Your task to perform on an android device: toggle wifi Image 0: 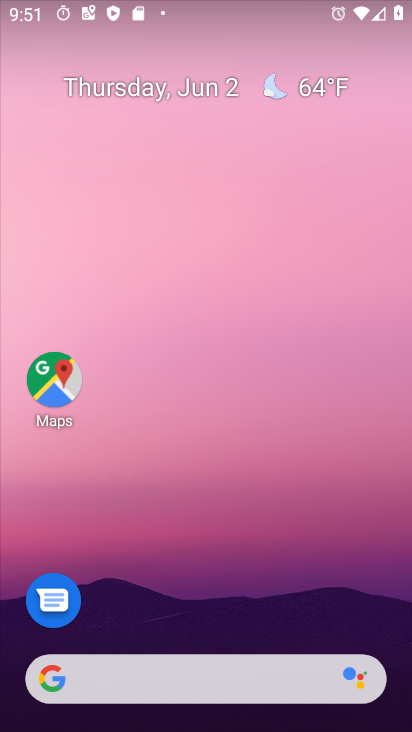
Step 0: drag from (216, 603) to (218, 119)
Your task to perform on an android device: toggle wifi Image 1: 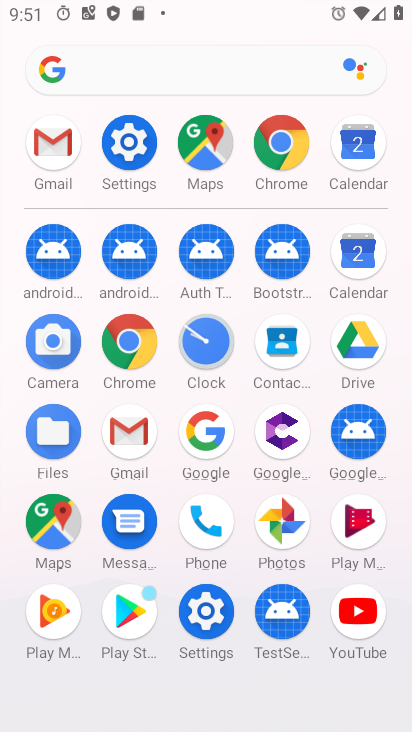
Step 1: click (131, 138)
Your task to perform on an android device: toggle wifi Image 2: 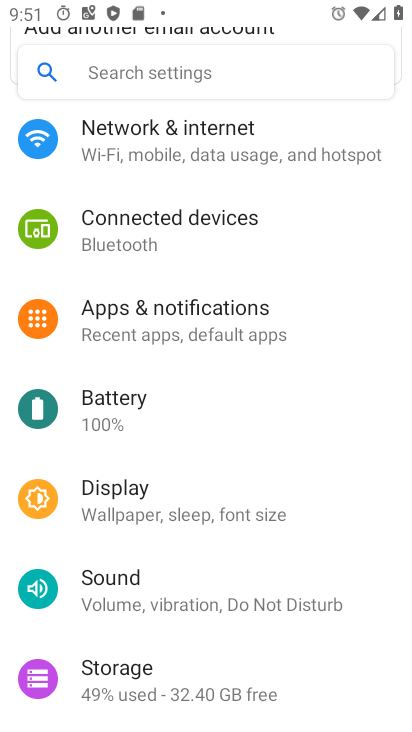
Step 2: click (174, 152)
Your task to perform on an android device: toggle wifi Image 3: 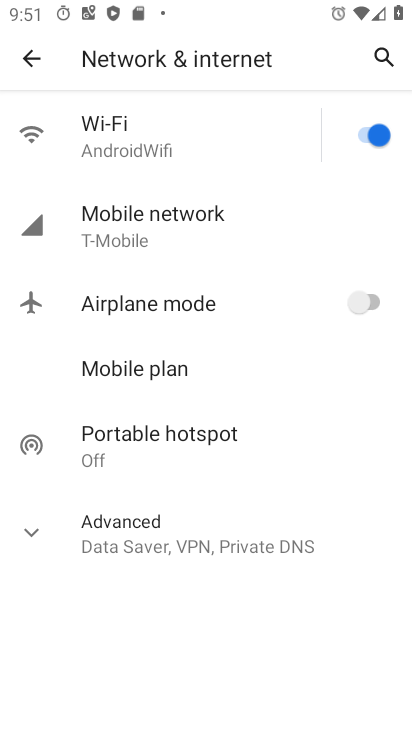
Step 3: click (383, 139)
Your task to perform on an android device: toggle wifi Image 4: 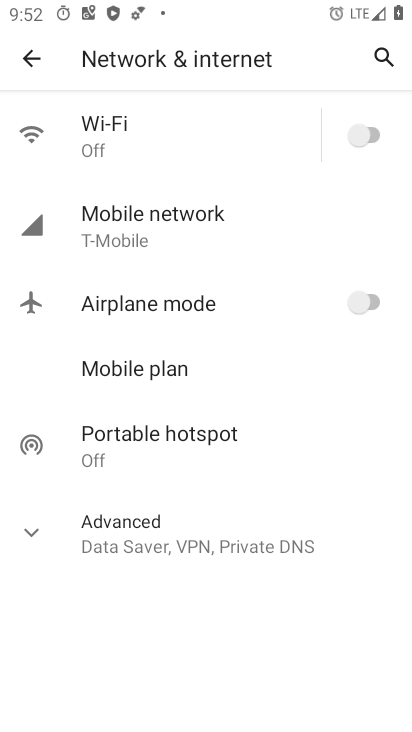
Step 4: task complete